Your task to perform on an android device: move an email to a new category in the gmail app Image 0: 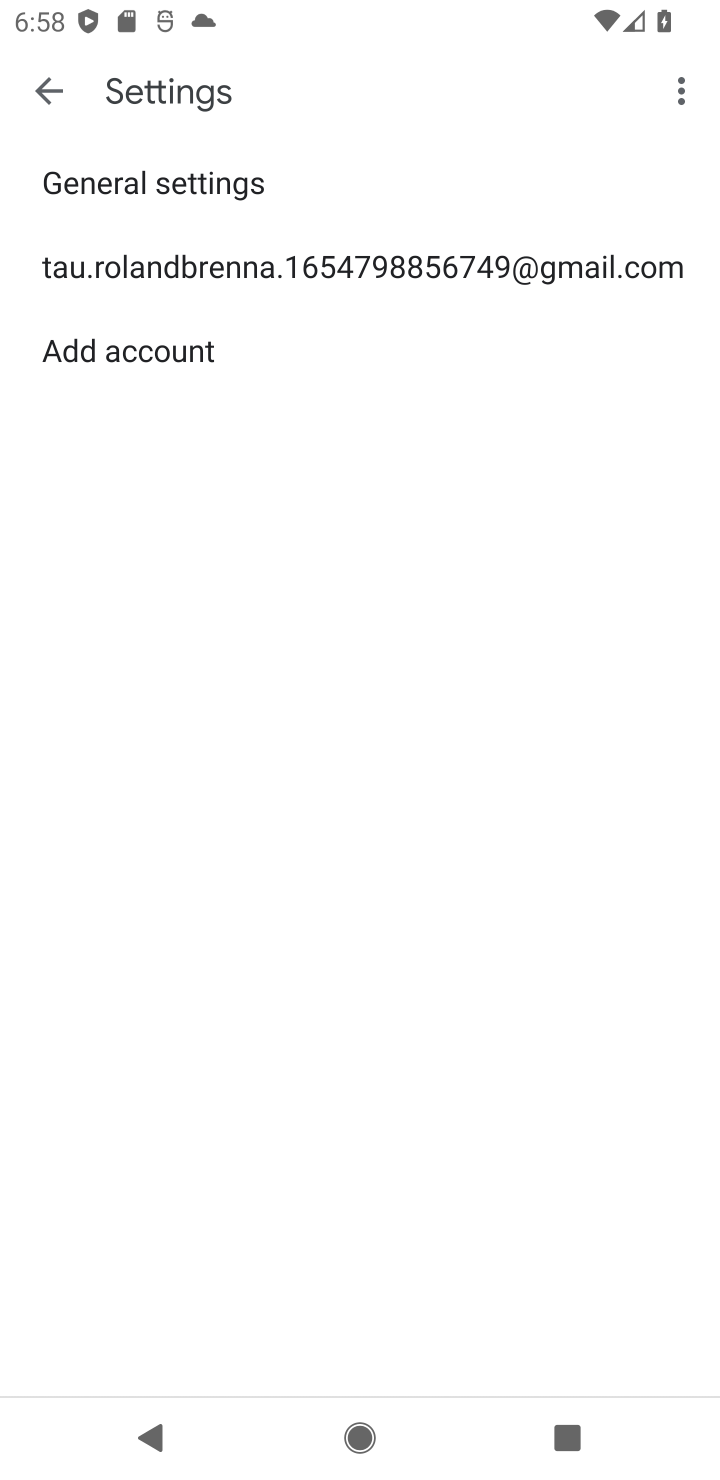
Step 0: press home button
Your task to perform on an android device: move an email to a new category in the gmail app Image 1: 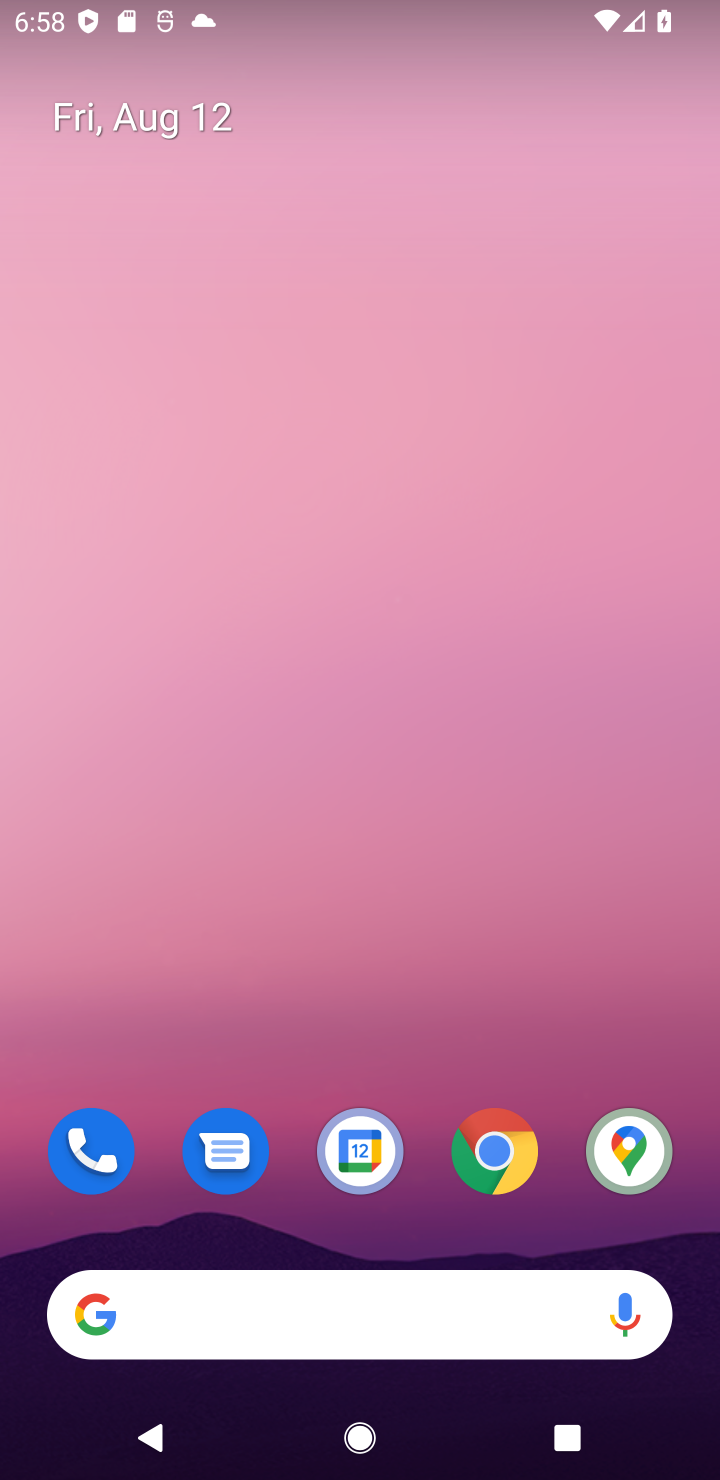
Step 1: drag from (514, 994) to (568, 94)
Your task to perform on an android device: move an email to a new category in the gmail app Image 2: 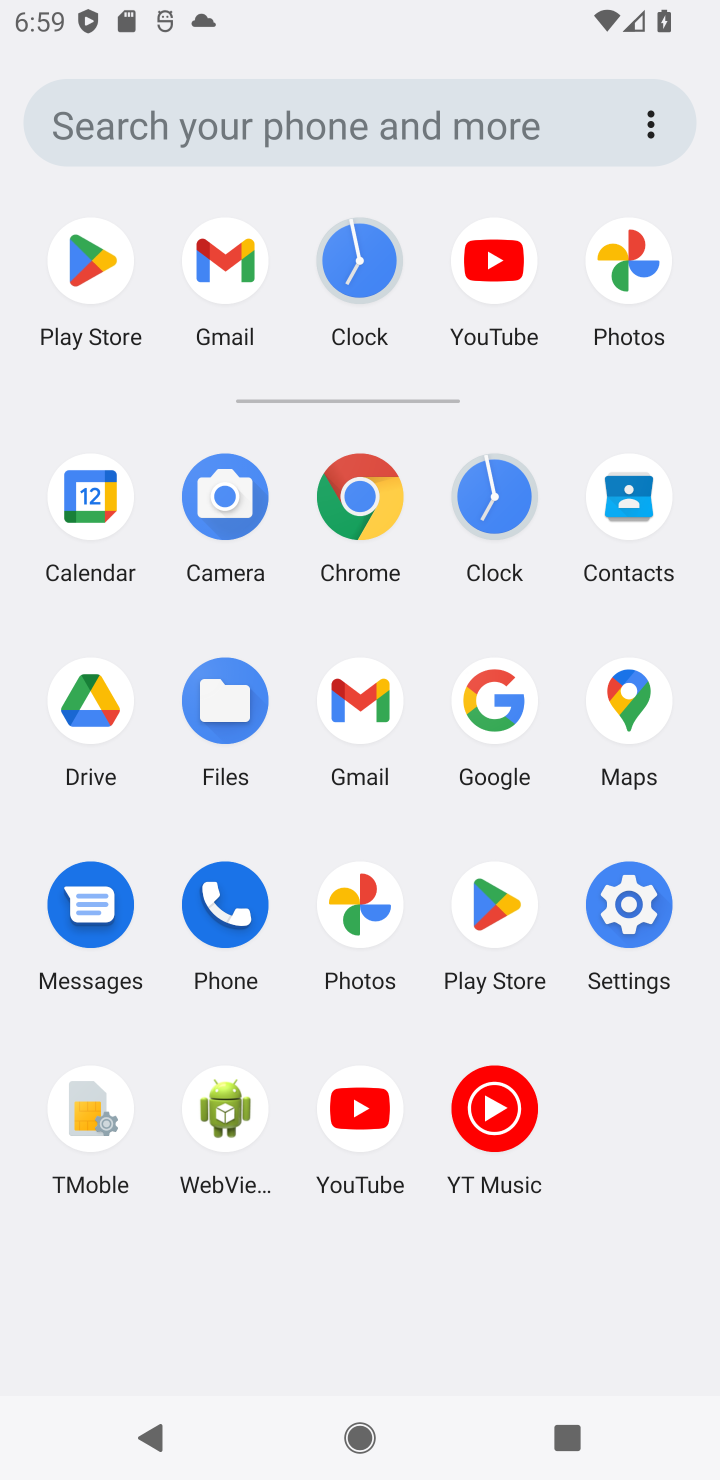
Step 2: click (382, 699)
Your task to perform on an android device: move an email to a new category in the gmail app Image 3: 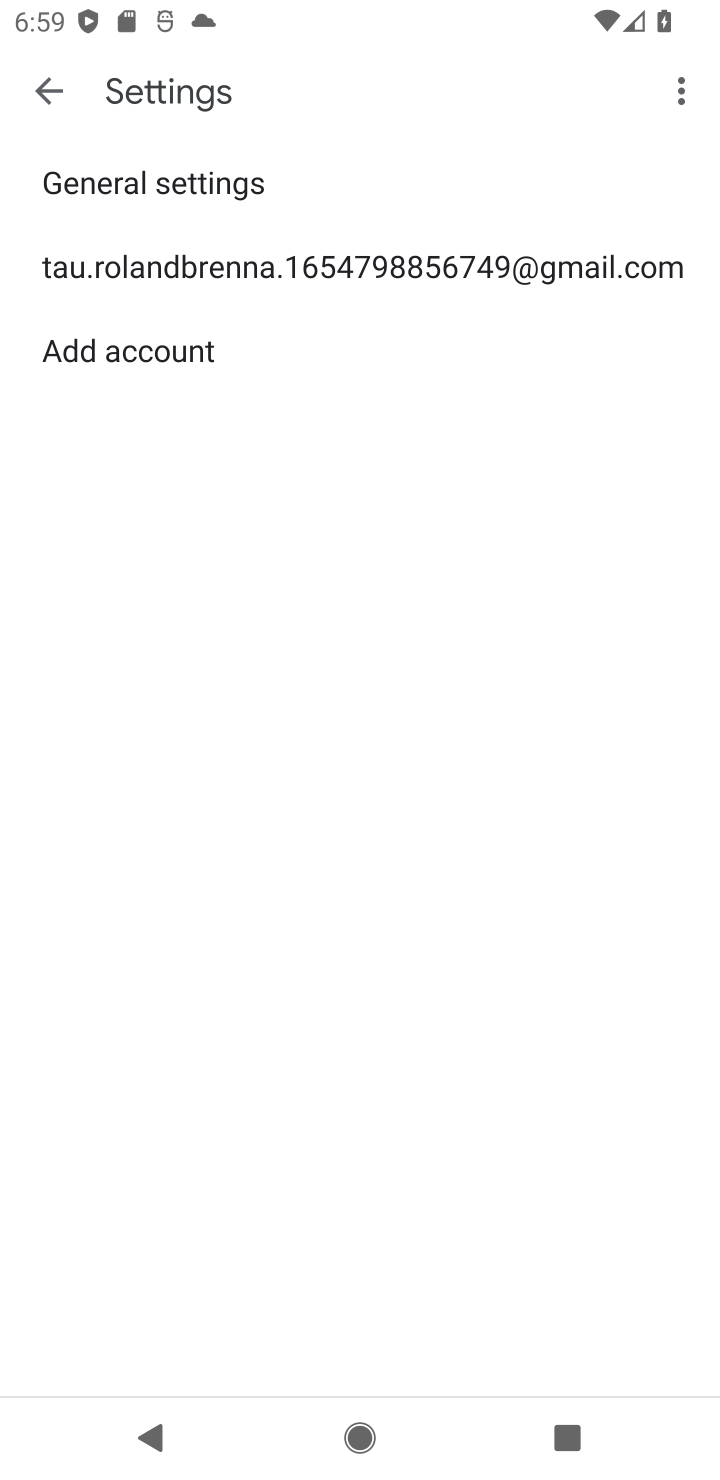
Step 3: press back button
Your task to perform on an android device: move an email to a new category in the gmail app Image 4: 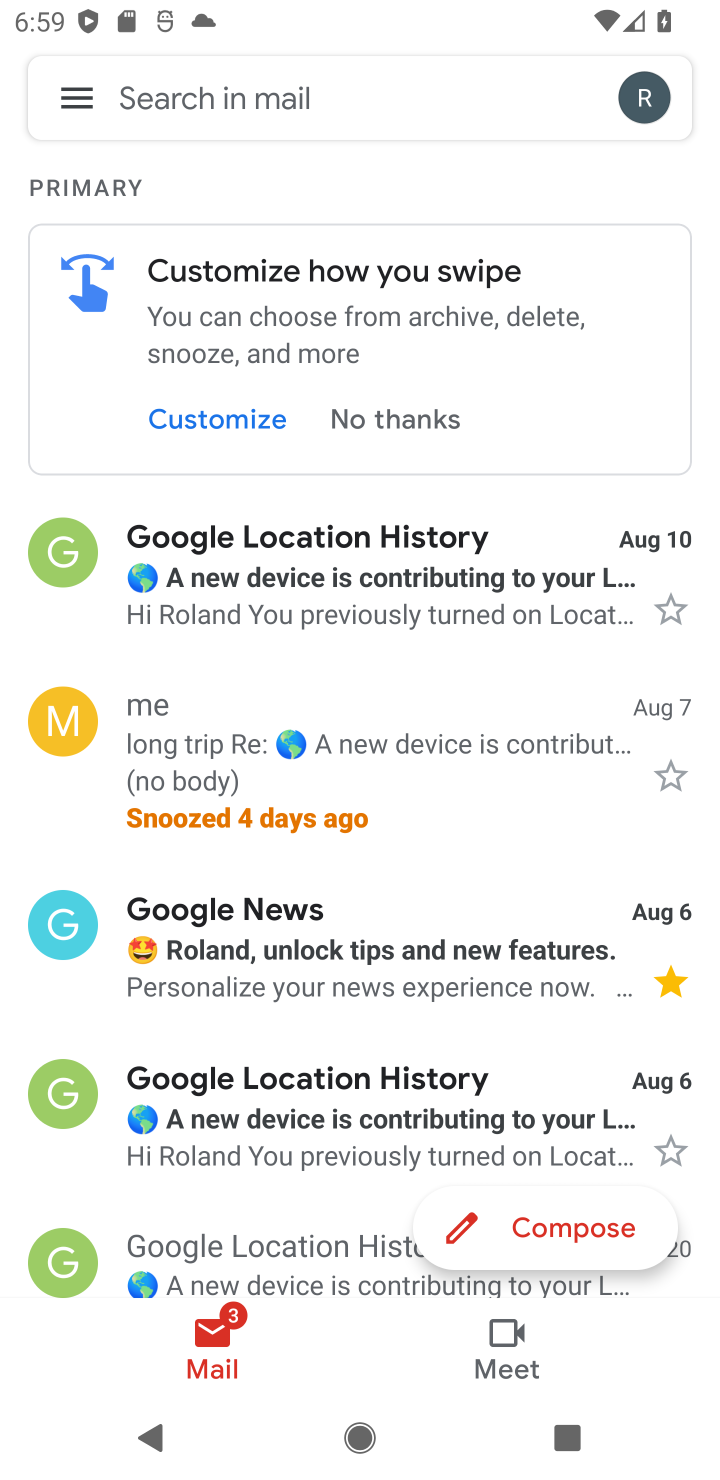
Step 4: click (60, 68)
Your task to perform on an android device: move an email to a new category in the gmail app Image 5: 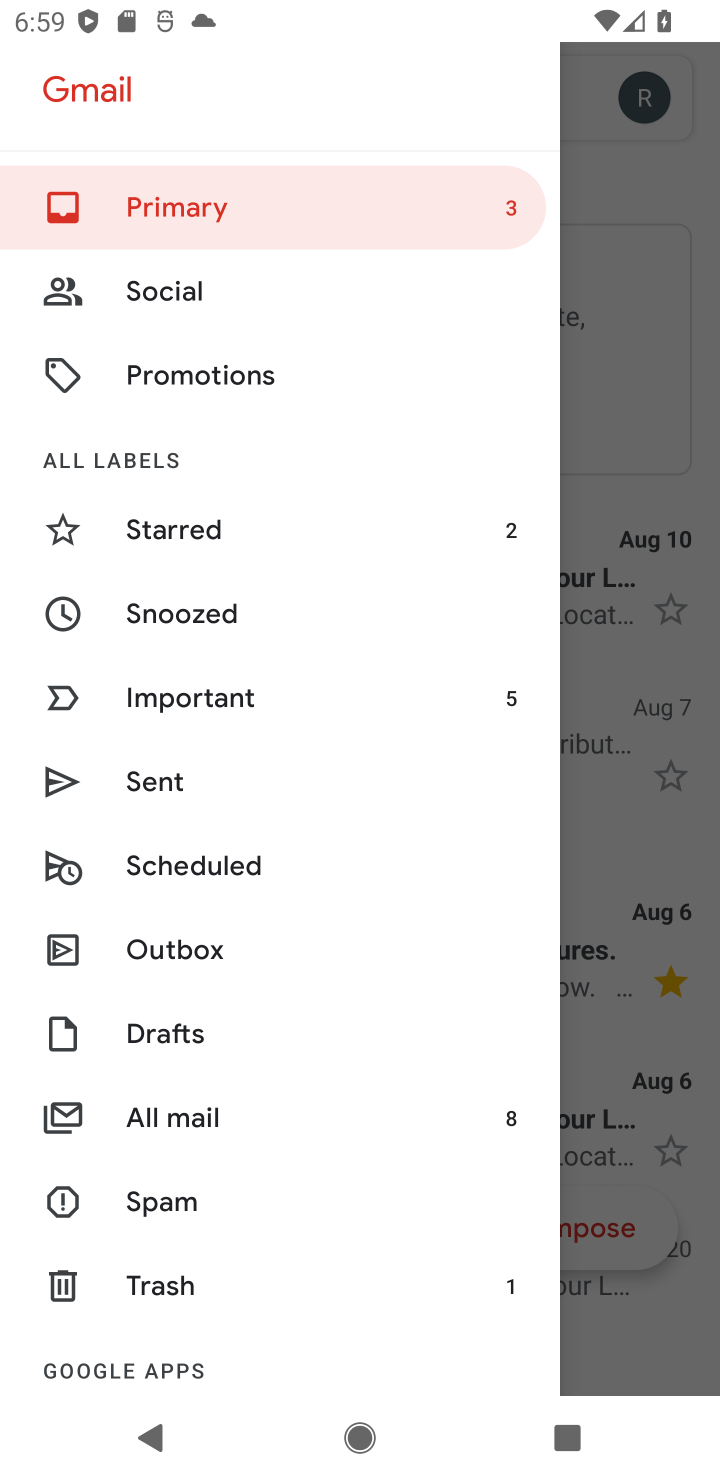
Step 5: drag from (374, 1235) to (459, 303)
Your task to perform on an android device: move an email to a new category in the gmail app Image 6: 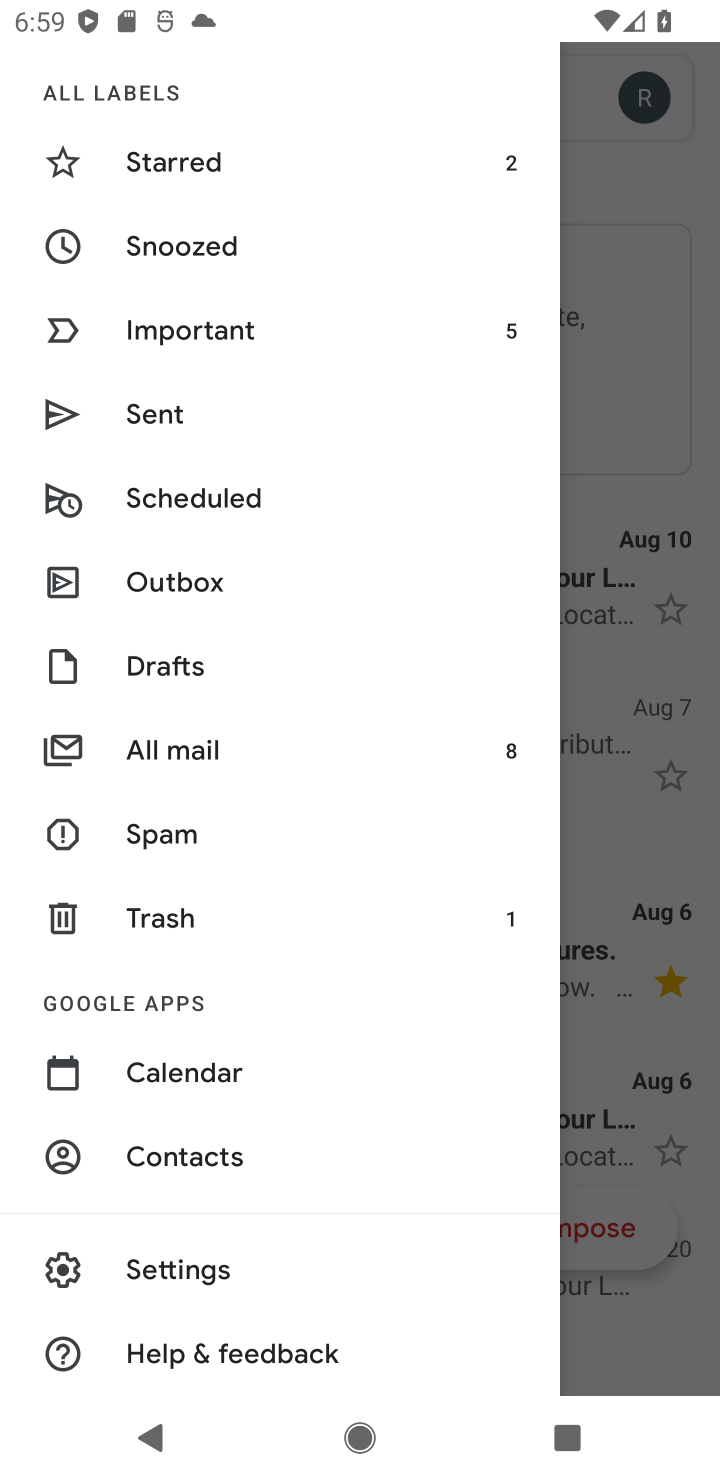
Step 6: click (203, 1260)
Your task to perform on an android device: move an email to a new category in the gmail app Image 7: 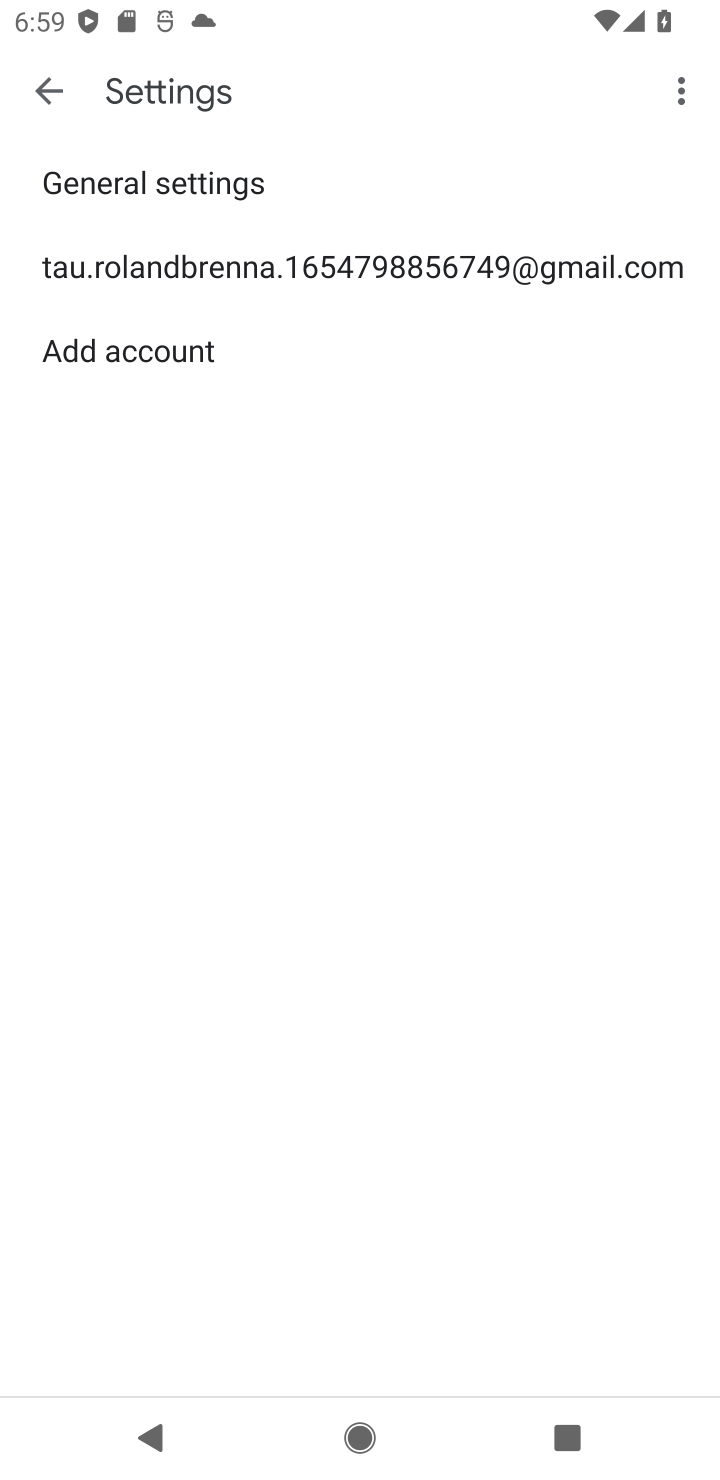
Step 7: click (454, 256)
Your task to perform on an android device: move an email to a new category in the gmail app Image 8: 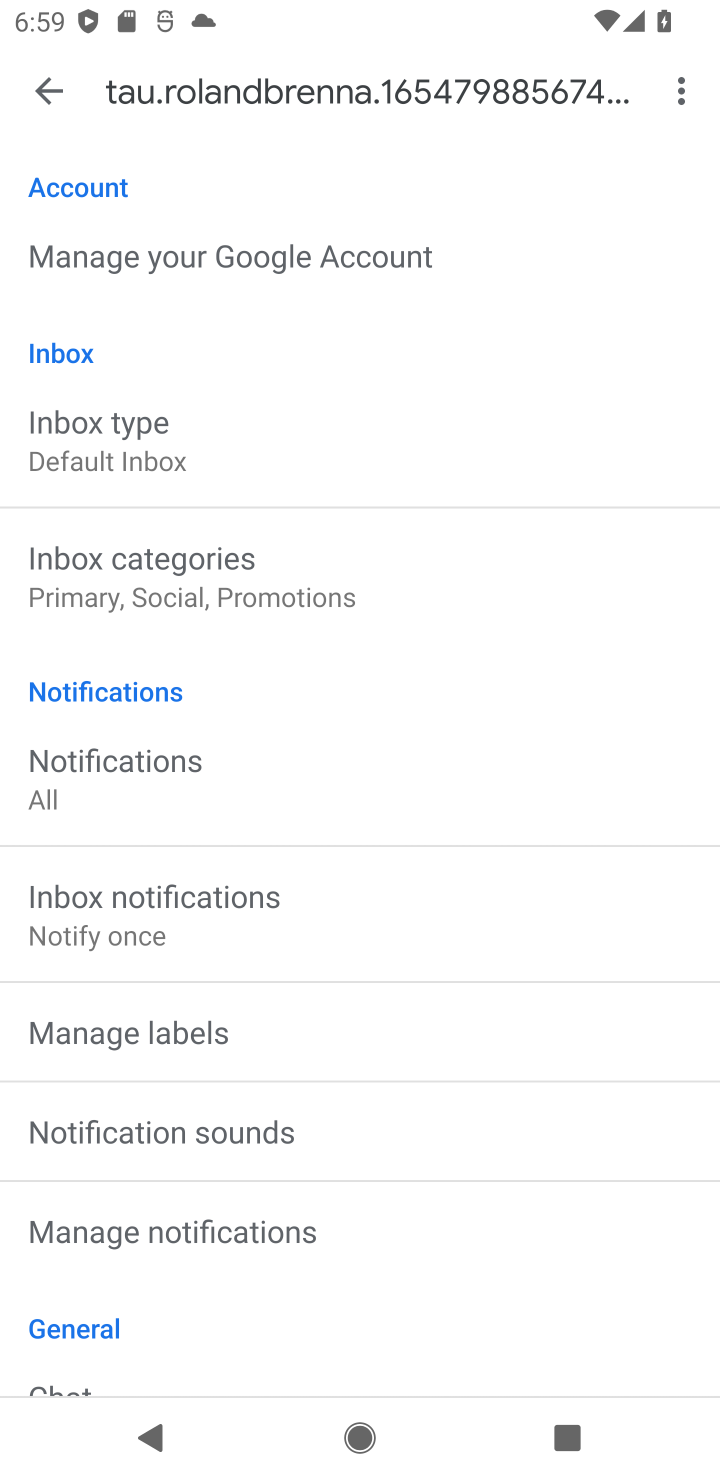
Step 8: click (275, 1229)
Your task to perform on an android device: move an email to a new category in the gmail app Image 9: 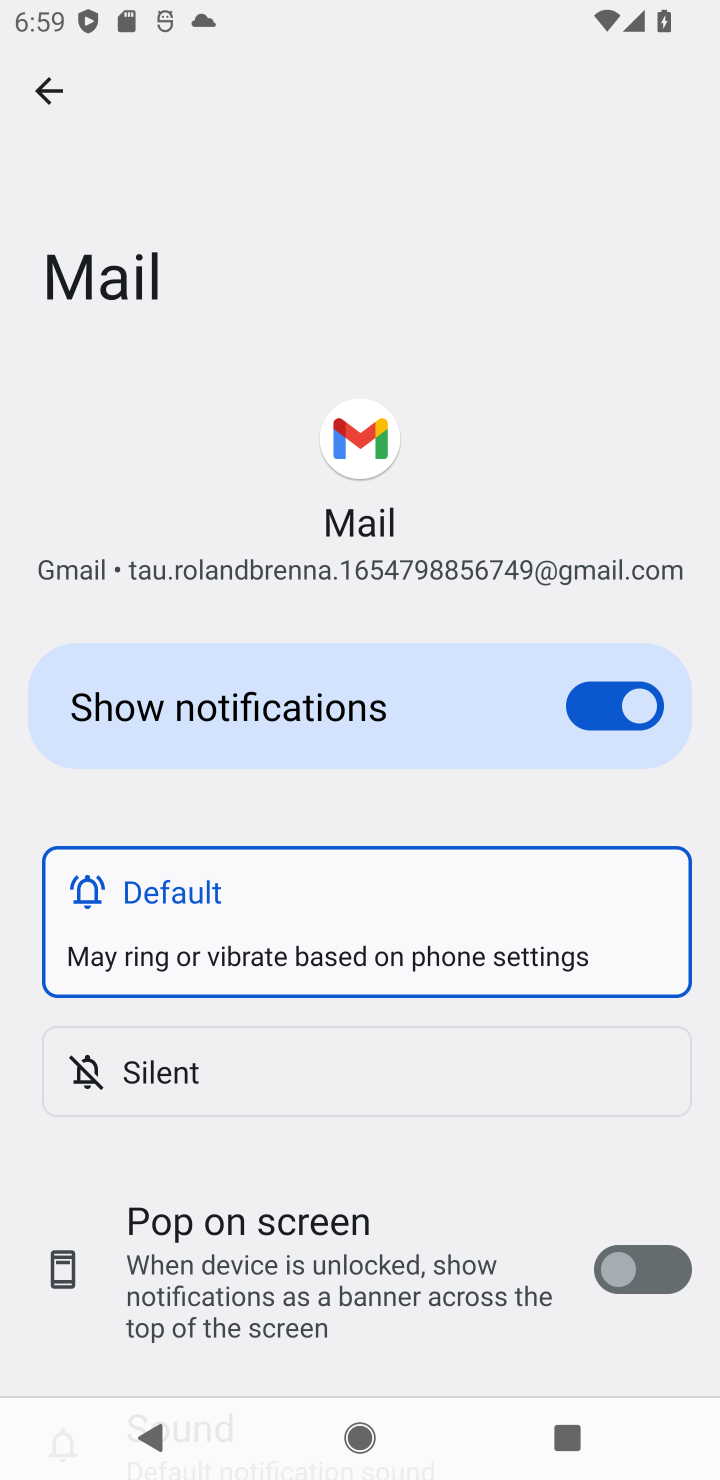
Step 9: click (60, 92)
Your task to perform on an android device: move an email to a new category in the gmail app Image 10: 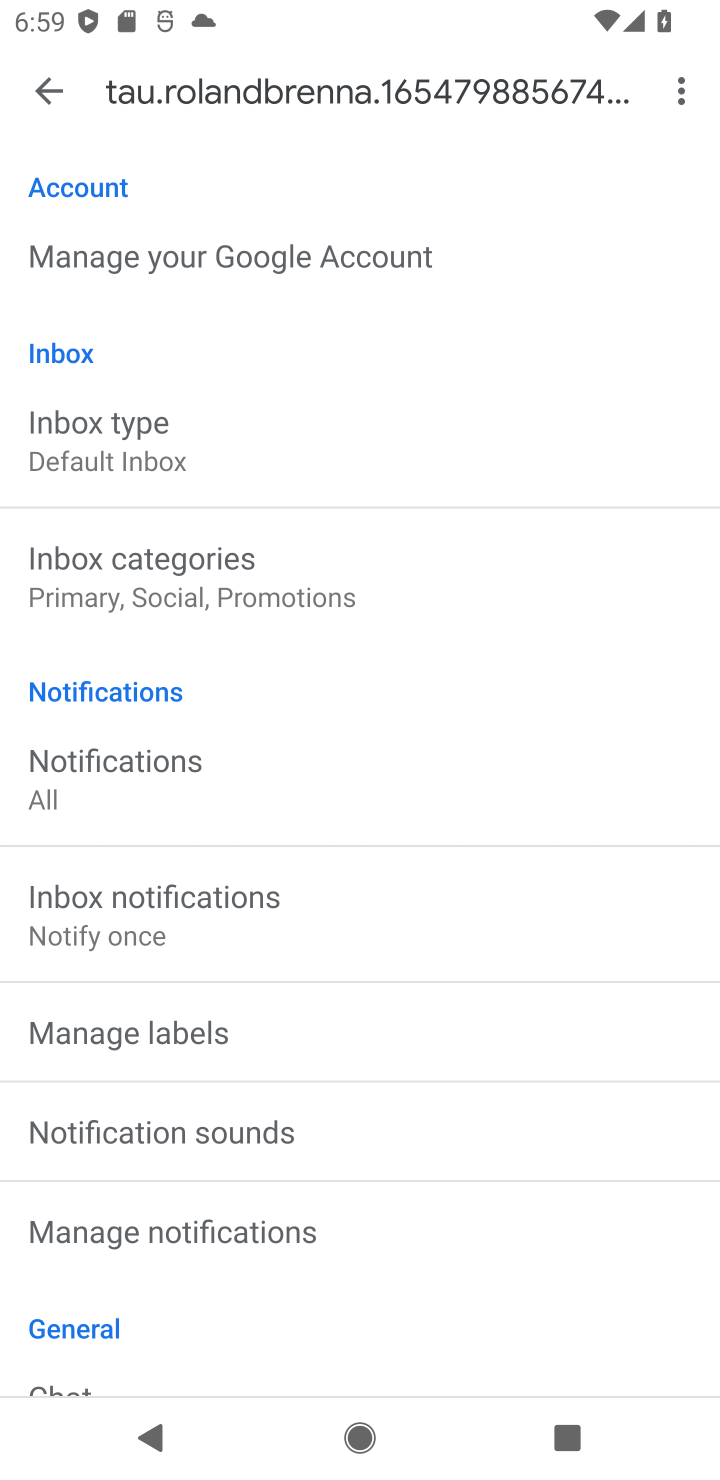
Step 10: drag from (376, 1295) to (360, 620)
Your task to perform on an android device: move an email to a new category in the gmail app Image 11: 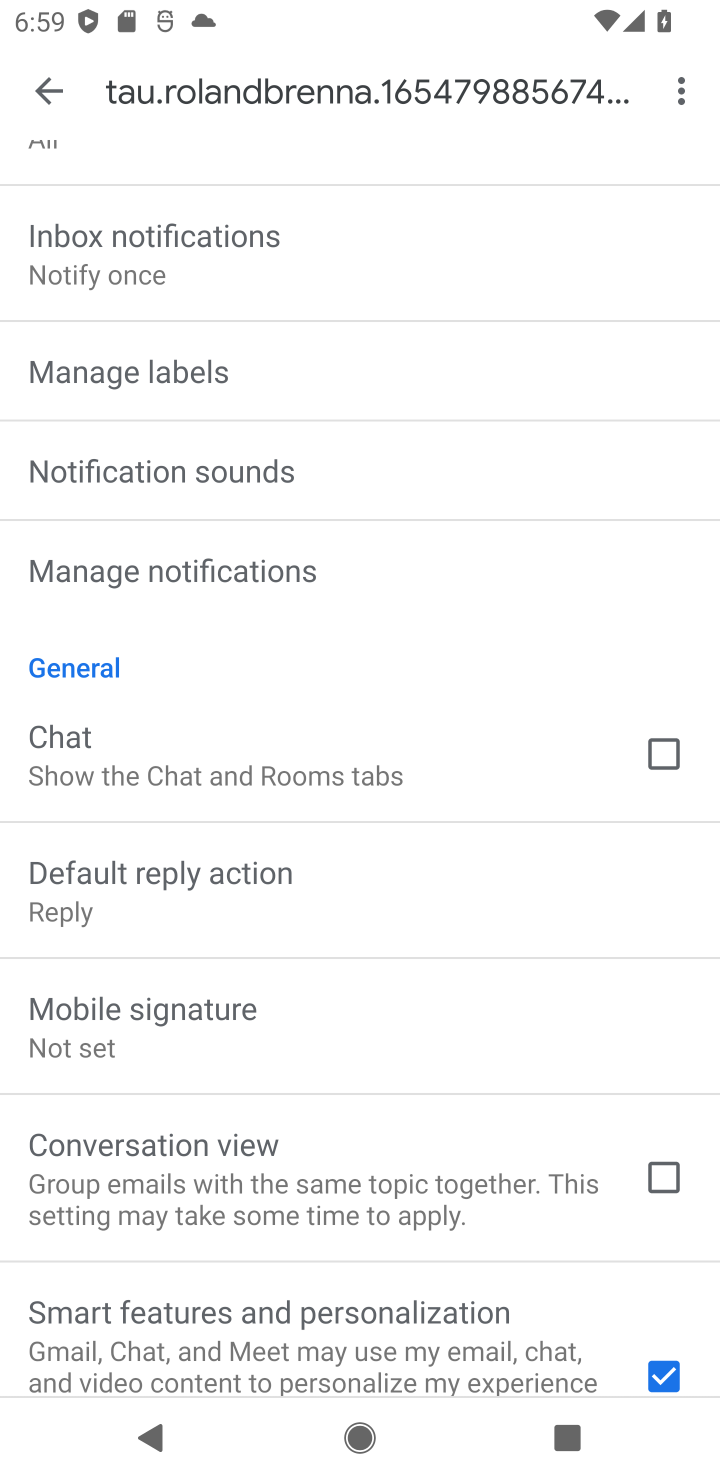
Step 11: click (178, 365)
Your task to perform on an android device: move an email to a new category in the gmail app Image 12: 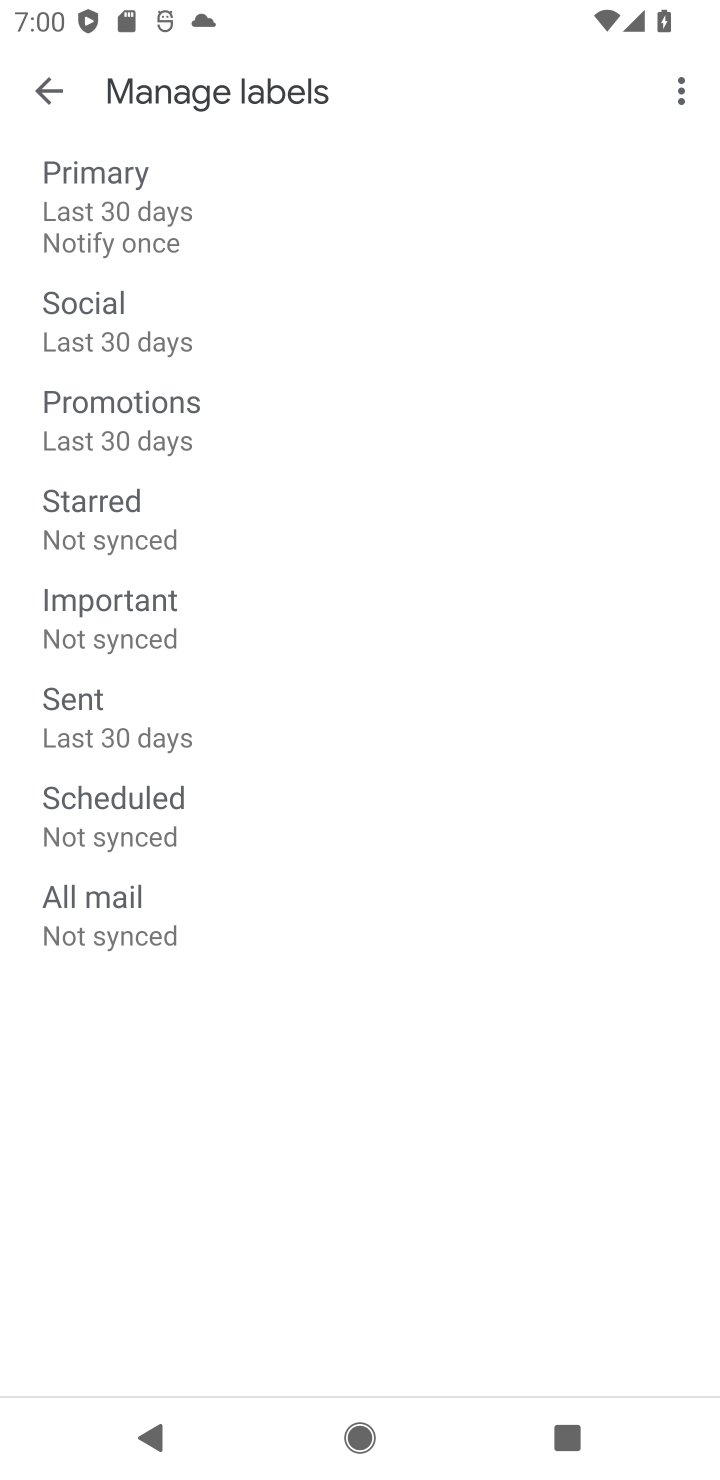
Step 12: task complete